Your task to perform on an android device: Go to wifi settings Image 0: 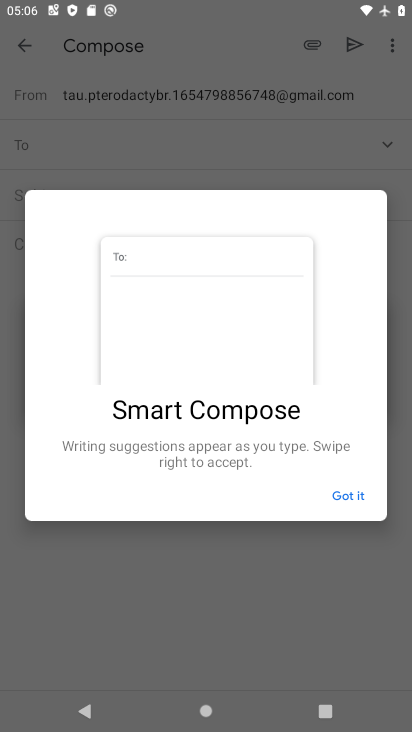
Step 0: press home button
Your task to perform on an android device: Go to wifi settings Image 1: 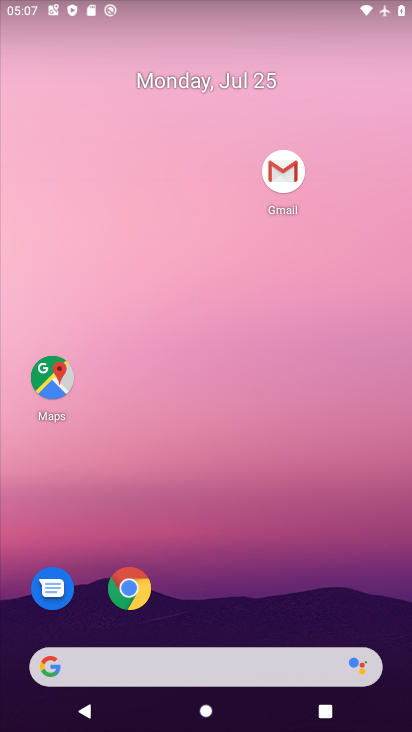
Step 1: drag from (338, 627) to (156, 75)
Your task to perform on an android device: Go to wifi settings Image 2: 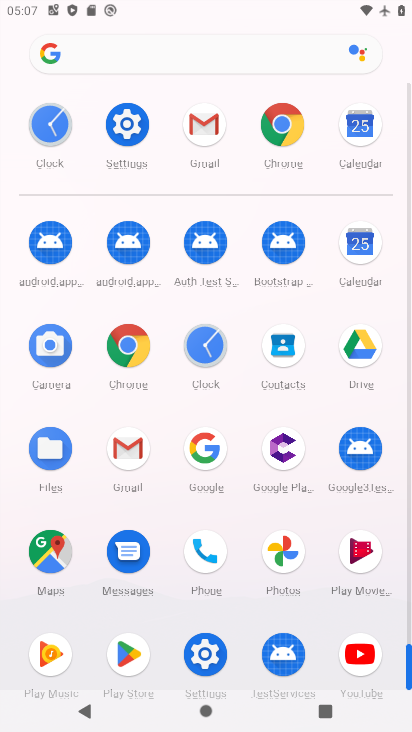
Step 2: click (133, 126)
Your task to perform on an android device: Go to wifi settings Image 3: 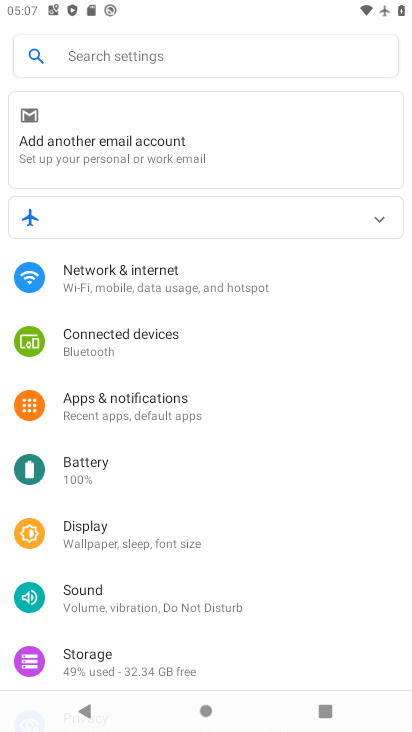
Step 3: click (131, 270)
Your task to perform on an android device: Go to wifi settings Image 4: 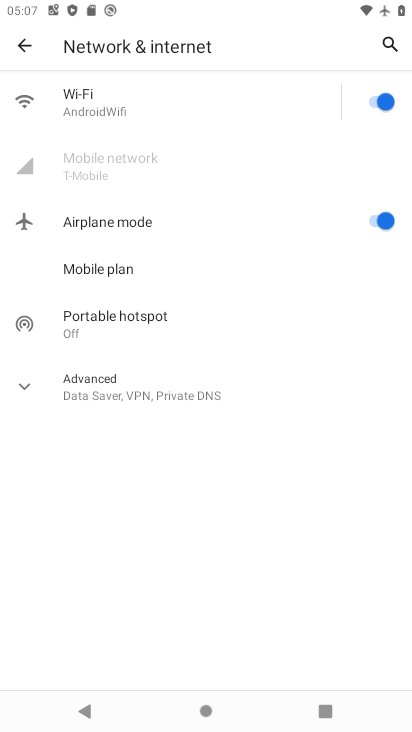
Step 4: click (211, 110)
Your task to perform on an android device: Go to wifi settings Image 5: 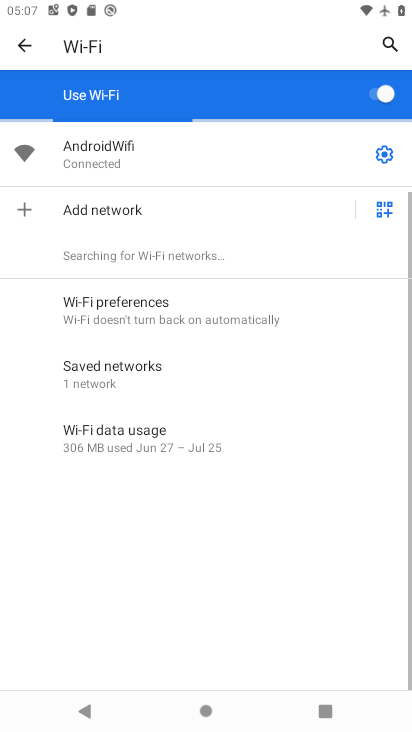
Step 5: click (383, 144)
Your task to perform on an android device: Go to wifi settings Image 6: 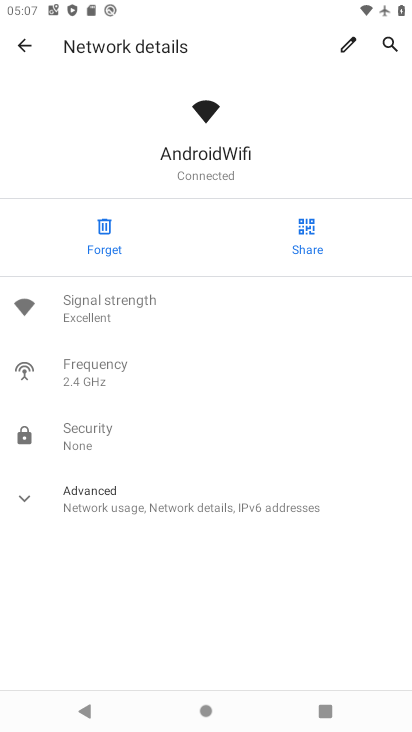
Step 6: task complete